Your task to perform on an android device: change the clock display to show seconds Image 0: 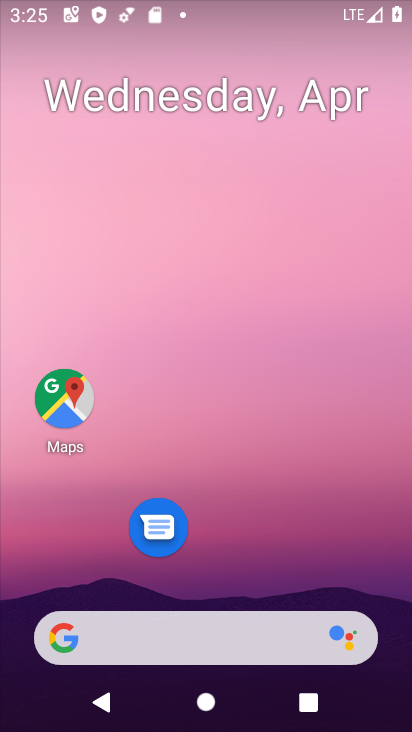
Step 0: drag from (232, 348) to (216, 21)
Your task to perform on an android device: change the clock display to show seconds Image 1: 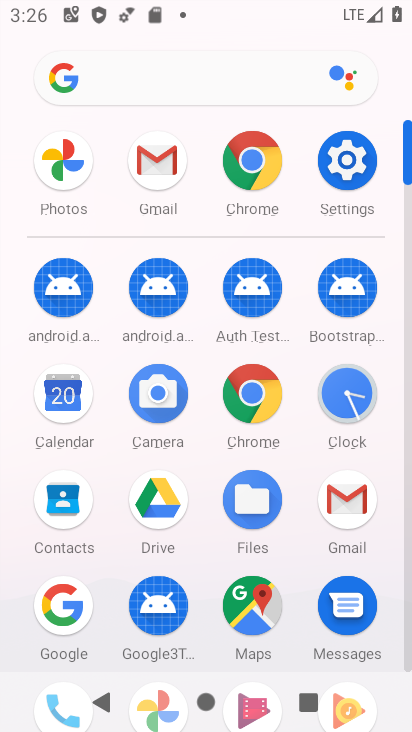
Step 1: click (355, 391)
Your task to perform on an android device: change the clock display to show seconds Image 2: 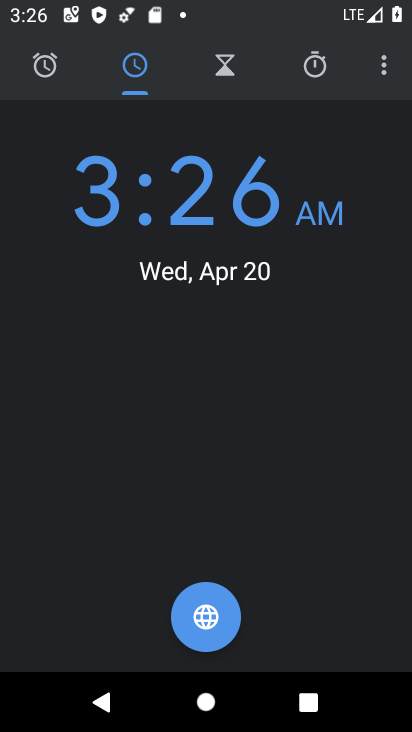
Step 2: click (382, 64)
Your task to perform on an android device: change the clock display to show seconds Image 3: 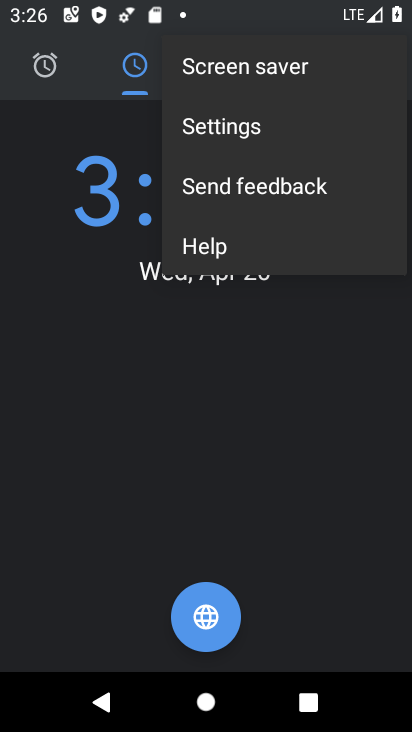
Step 3: click (275, 118)
Your task to perform on an android device: change the clock display to show seconds Image 4: 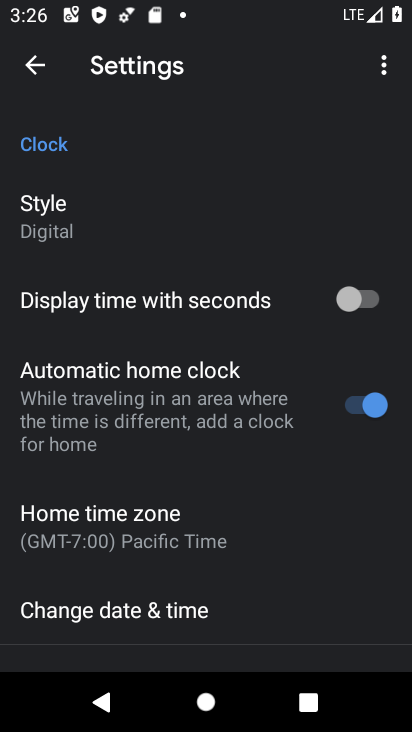
Step 4: click (354, 313)
Your task to perform on an android device: change the clock display to show seconds Image 5: 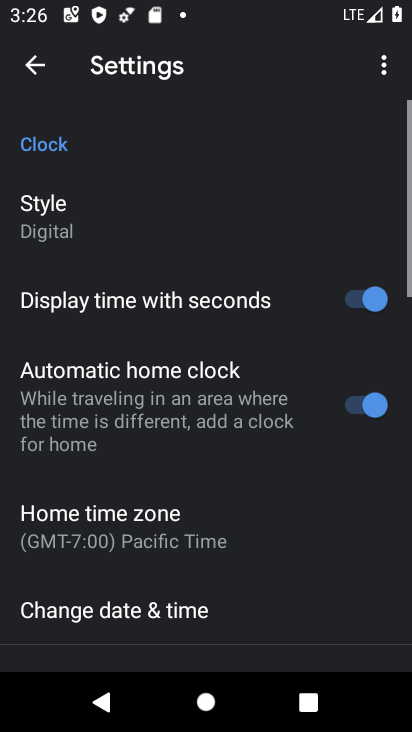
Step 5: task complete